Your task to perform on an android device: delete a single message in the gmail app Image 0: 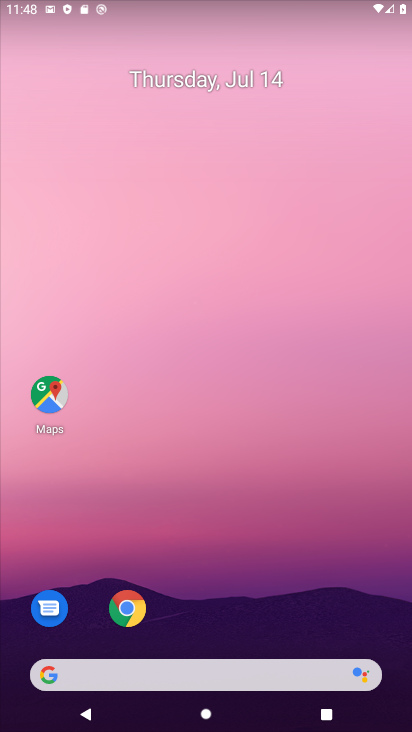
Step 0: drag from (178, 660) to (114, 81)
Your task to perform on an android device: delete a single message in the gmail app Image 1: 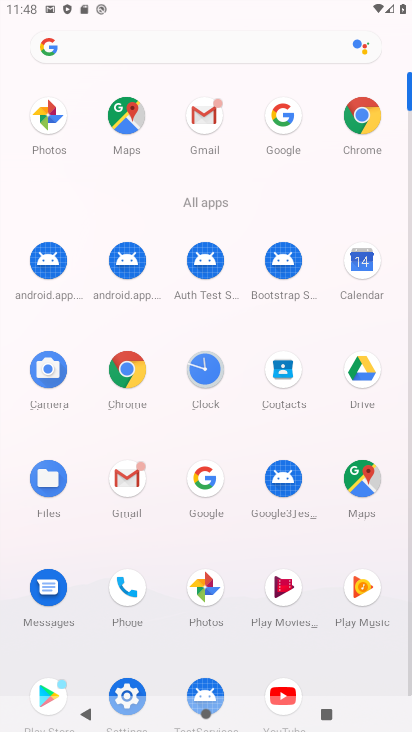
Step 1: click (115, 483)
Your task to perform on an android device: delete a single message in the gmail app Image 2: 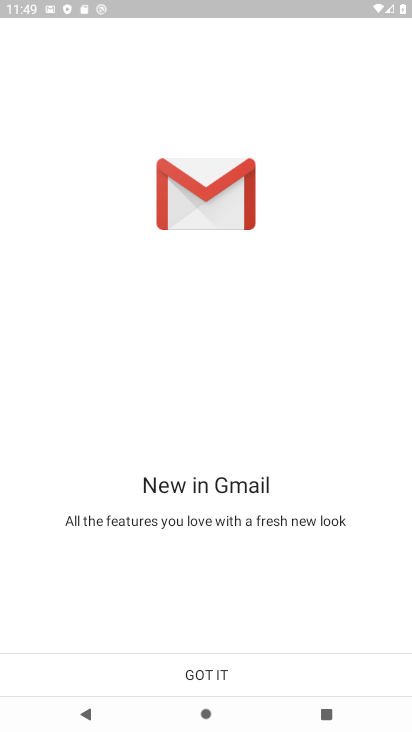
Step 2: click (222, 662)
Your task to perform on an android device: delete a single message in the gmail app Image 3: 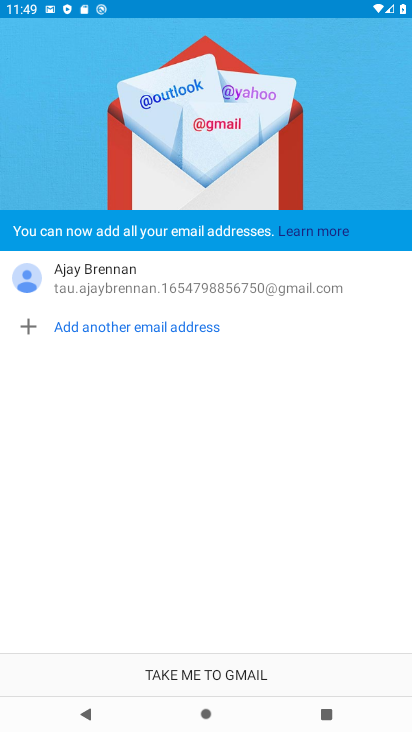
Step 3: click (212, 681)
Your task to perform on an android device: delete a single message in the gmail app Image 4: 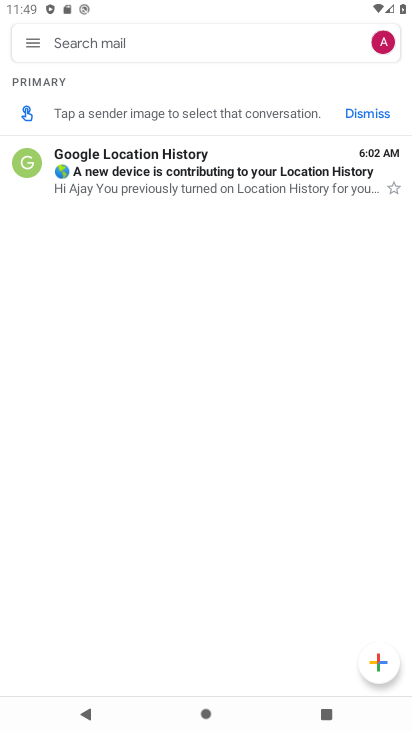
Step 4: click (28, 162)
Your task to perform on an android device: delete a single message in the gmail app Image 5: 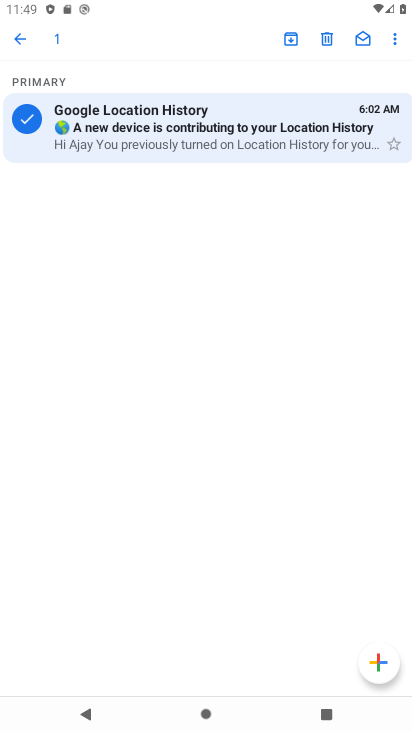
Step 5: click (327, 42)
Your task to perform on an android device: delete a single message in the gmail app Image 6: 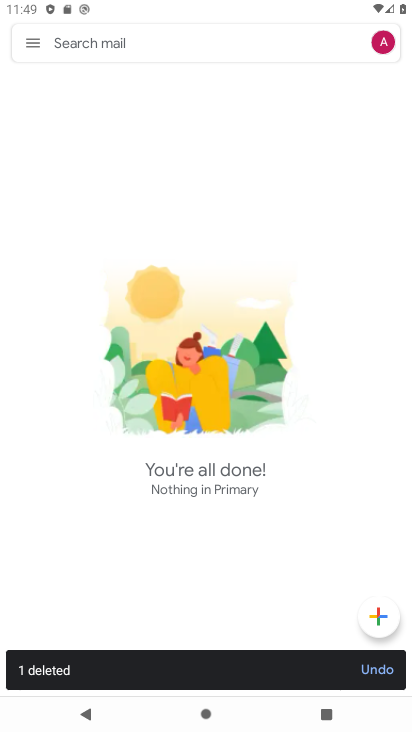
Step 6: task complete